Your task to perform on an android device: Clear the cart on ebay. Add "razer blackwidow" to the cart on ebay, then select checkout. Image 0: 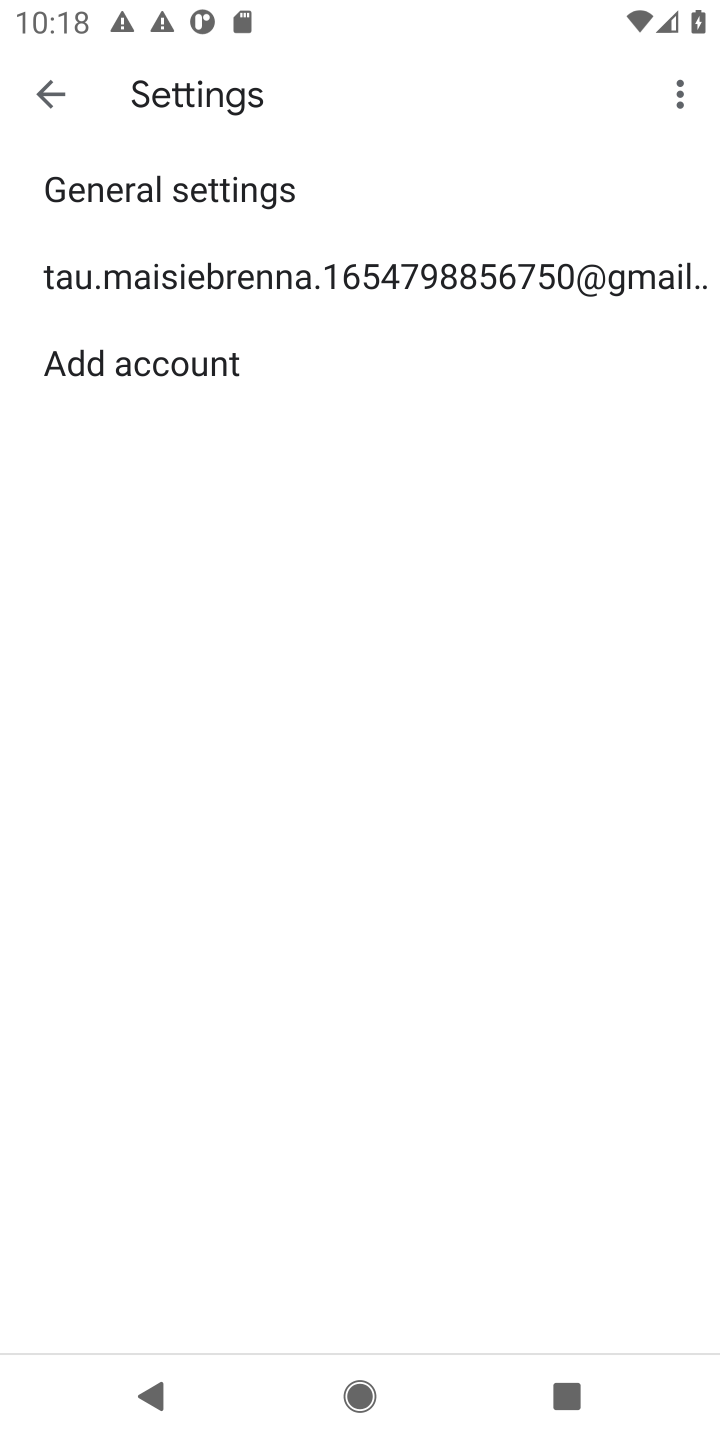
Step 0: press home button
Your task to perform on an android device: Clear the cart on ebay. Add "razer blackwidow" to the cart on ebay, then select checkout. Image 1: 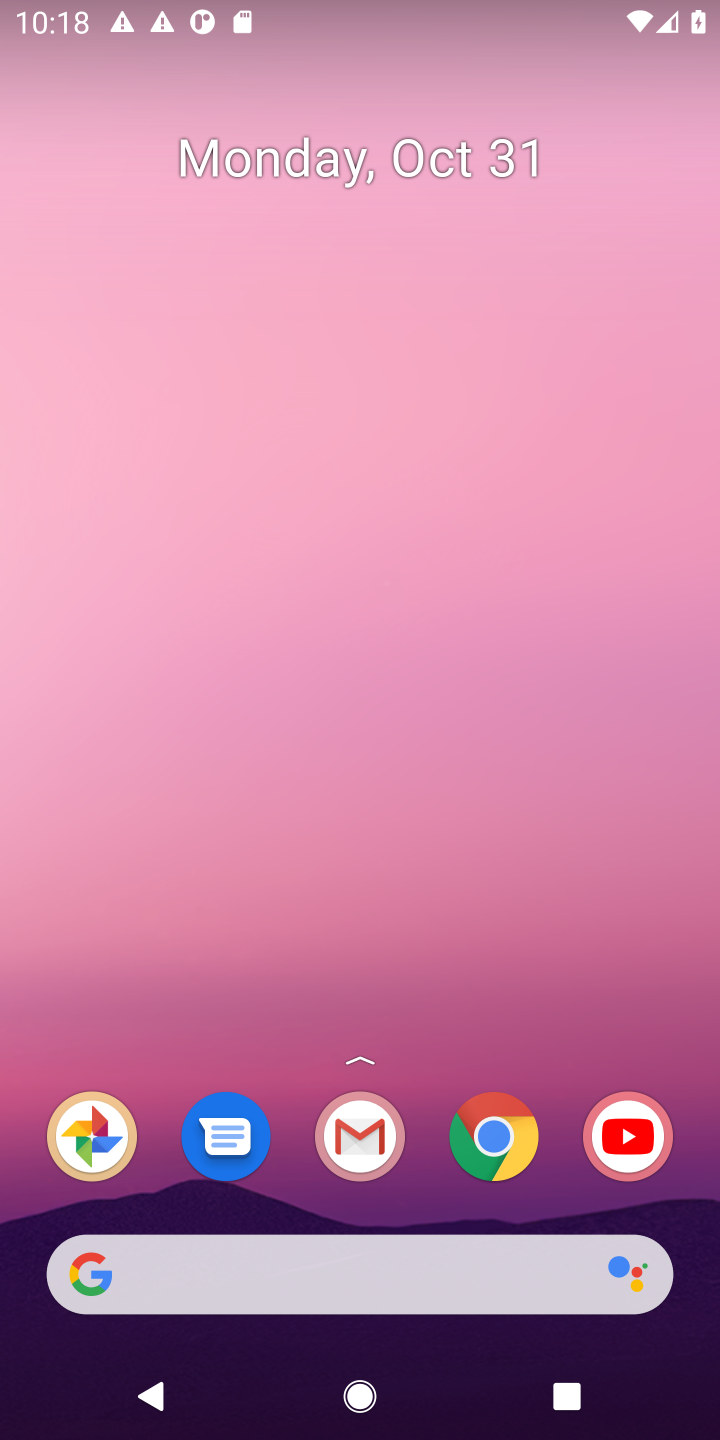
Step 1: click (122, 1251)
Your task to perform on an android device: Clear the cart on ebay. Add "razer blackwidow" to the cart on ebay, then select checkout. Image 2: 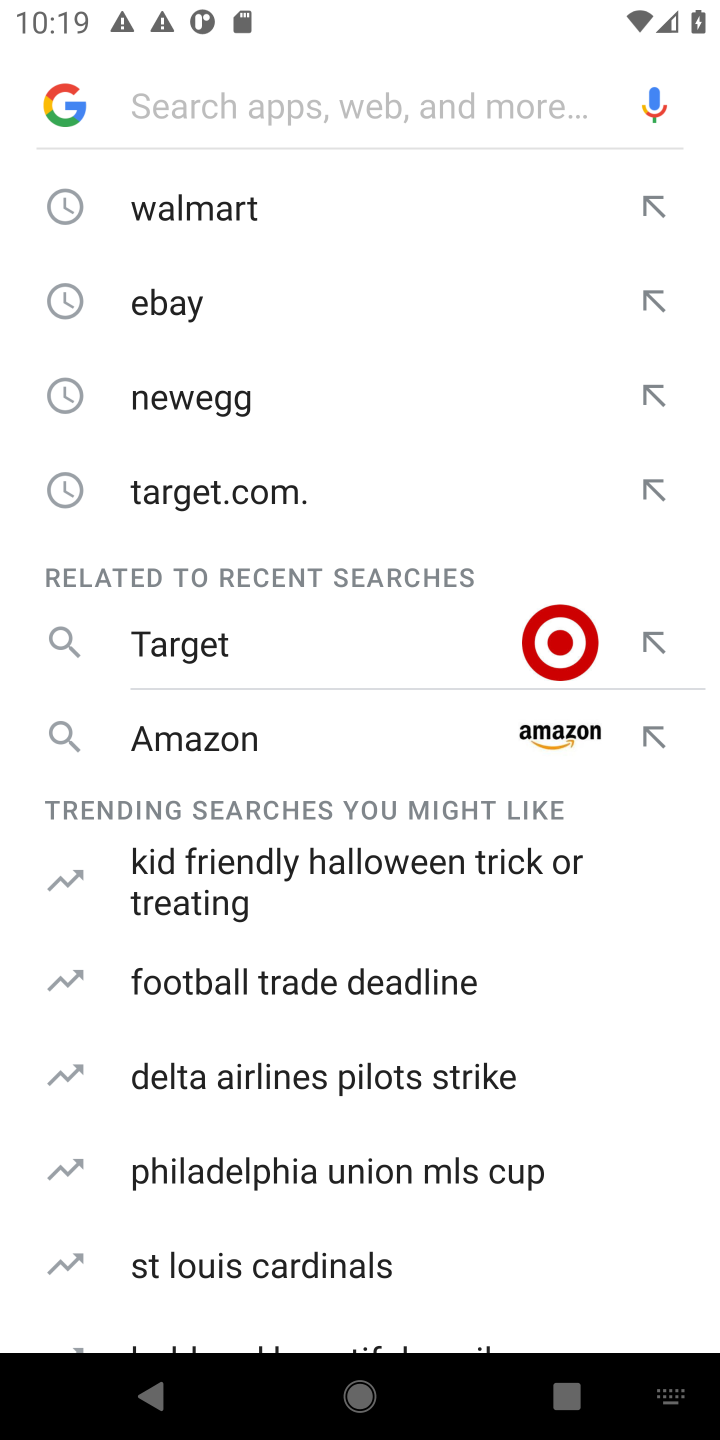
Step 2: type "ebay"
Your task to perform on an android device: Clear the cart on ebay. Add "razer blackwidow" to the cart on ebay, then select checkout. Image 3: 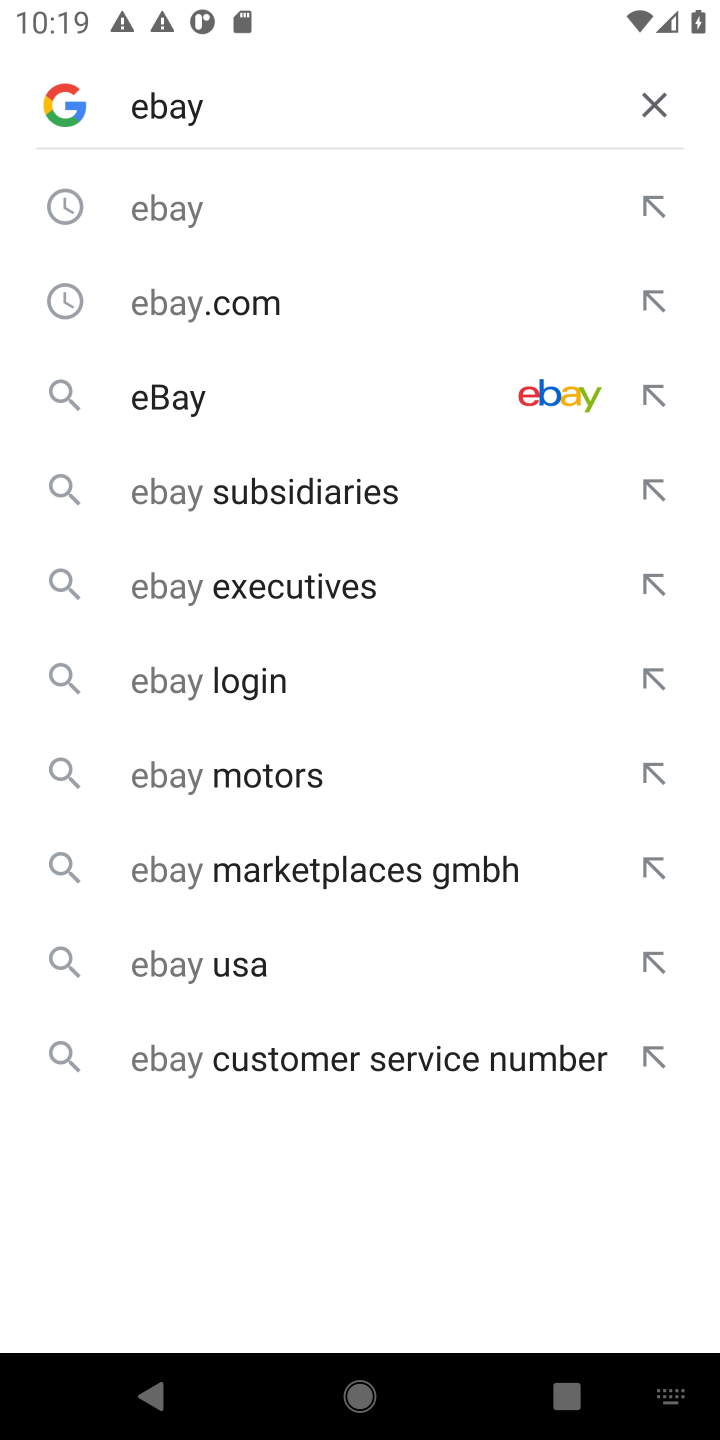
Step 3: press enter
Your task to perform on an android device: Clear the cart on ebay. Add "razer blackwidow" to the cart on ebay, then select checkout. Image 4: 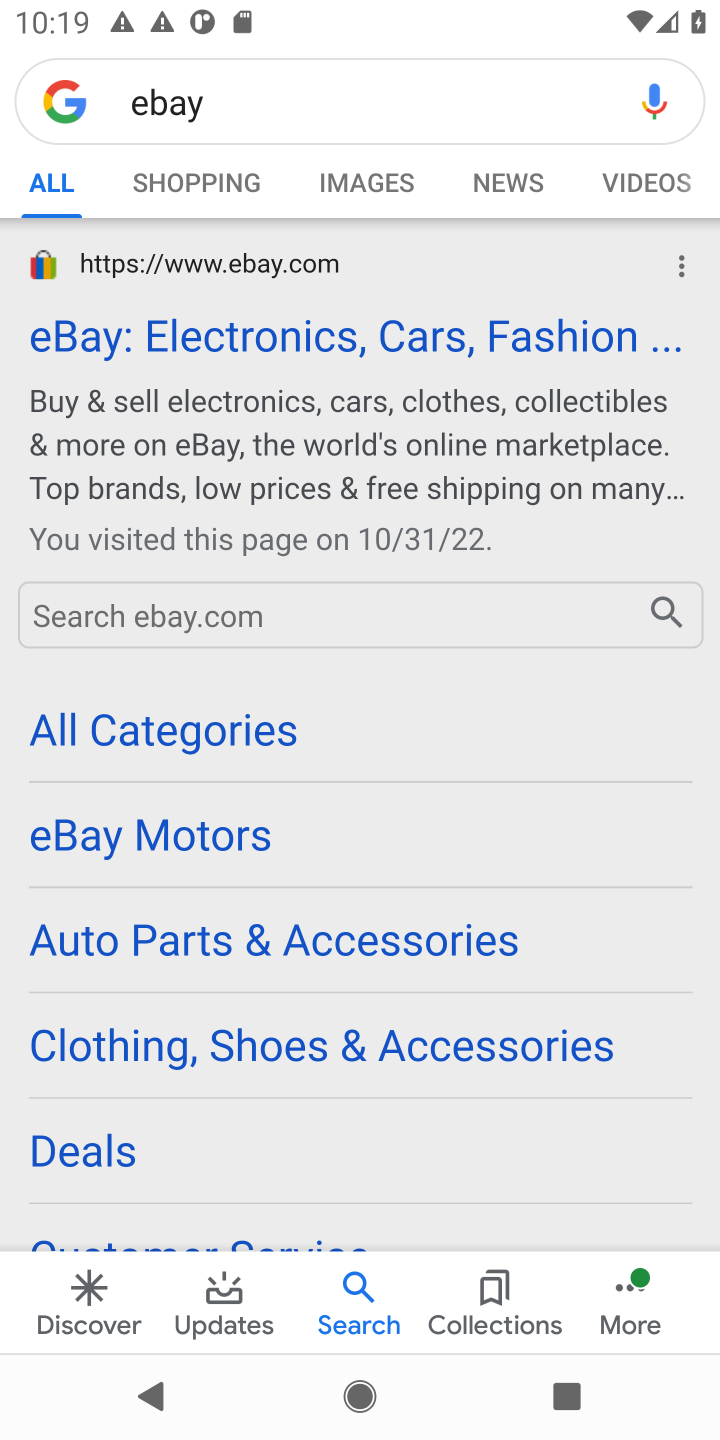
Step 4: click (177, 339)
Your task to perform on an android device: Clear the cart on ebay. Add "razer blackwidow" to the cart on ebay, then select checkout. Image 5: 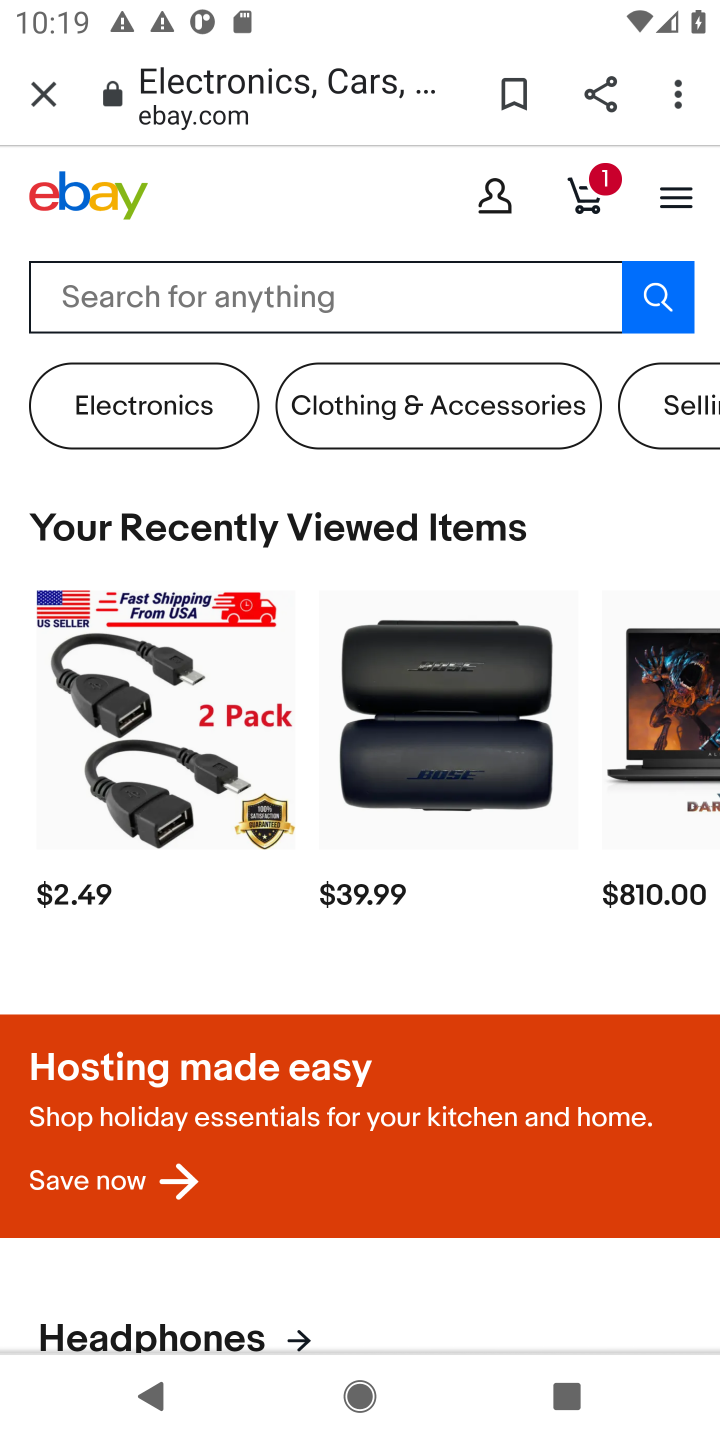
Step 5: click (590, 196)
Your task to perform on an android device: Clear the cart on ebay. Add "razer blackwidow" to the cart on ebay, then select checkout. Image 6: 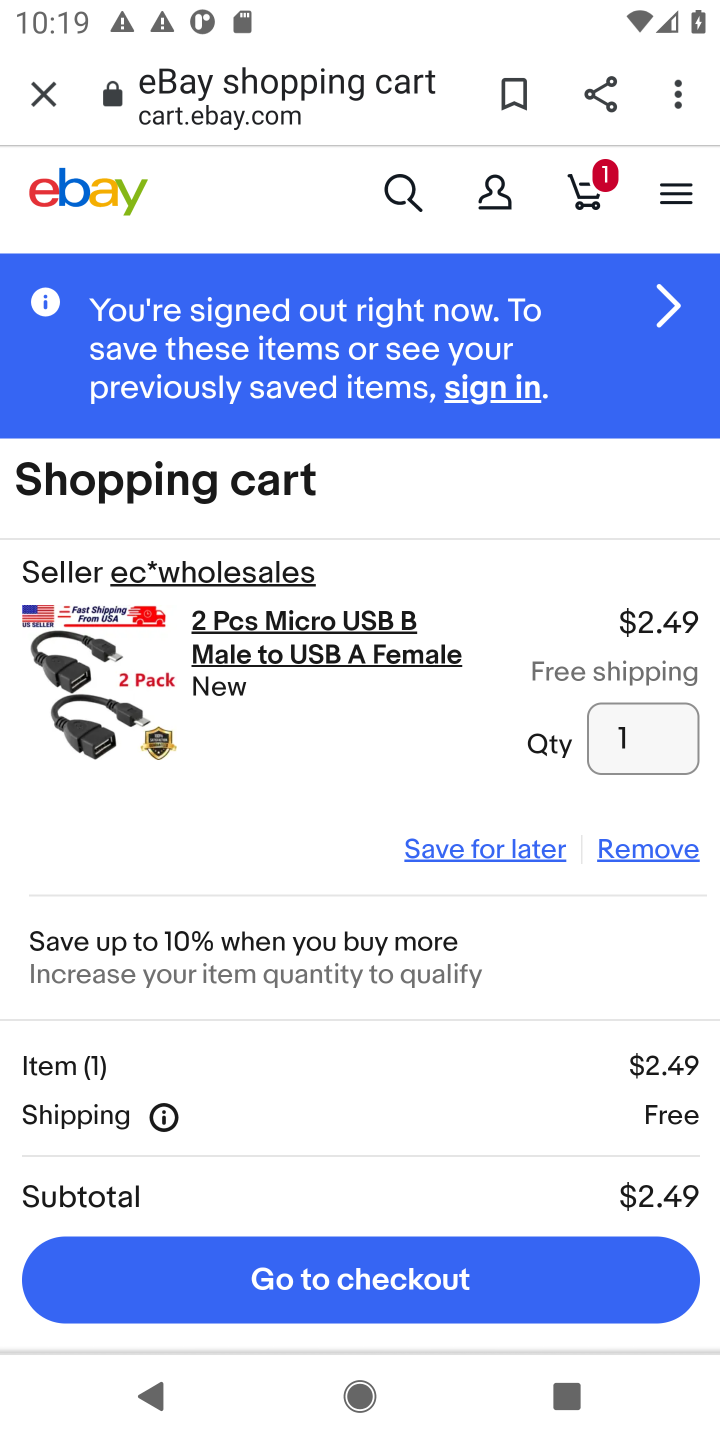
Step 6: click (640, 850)
Your task to perform on an android device: Clear the cart on ebay. Add "razer blackwidow" to the cart on ebay, then select checkout. Image 7: 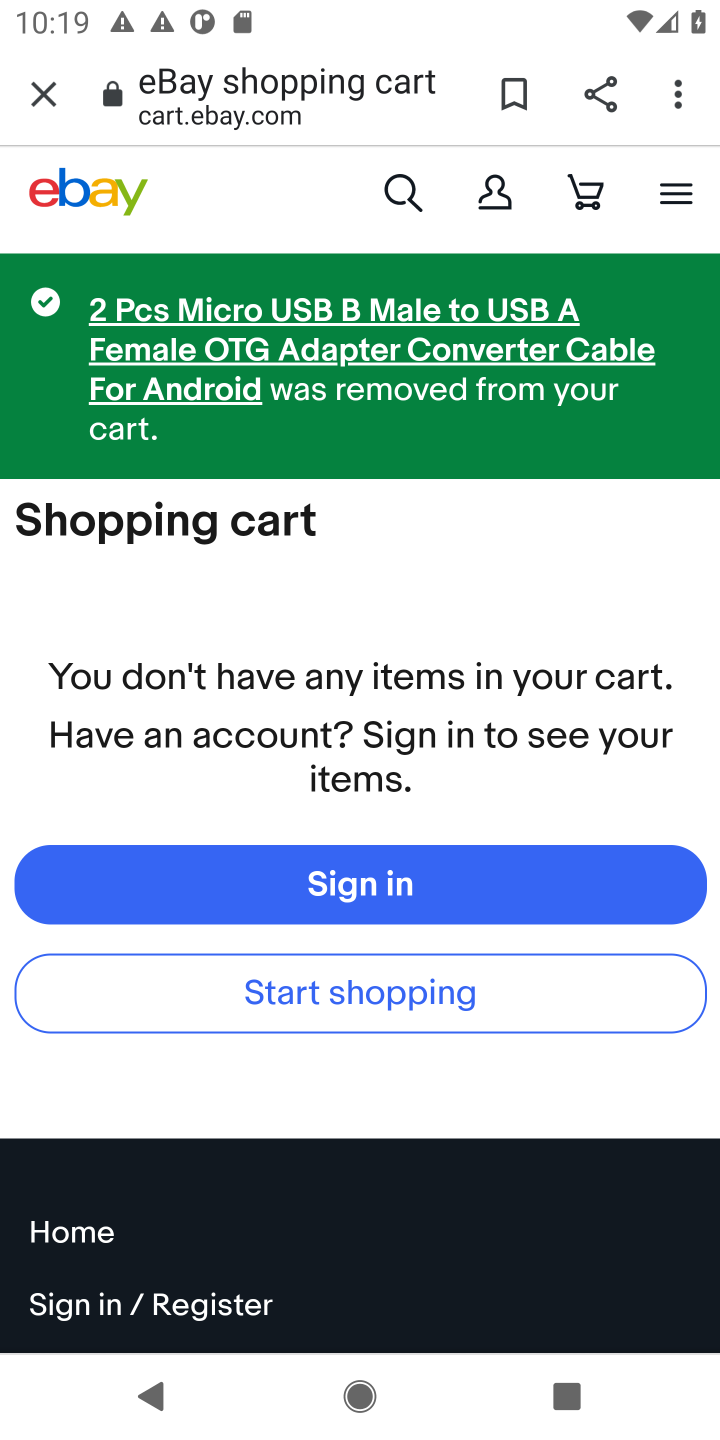
Step 7: click (396, 188)
Your task to perform on an android device: Clear the cart on ebay. Add "razer blackwidow" to the cart on ebay, then select checkout. Image 8: 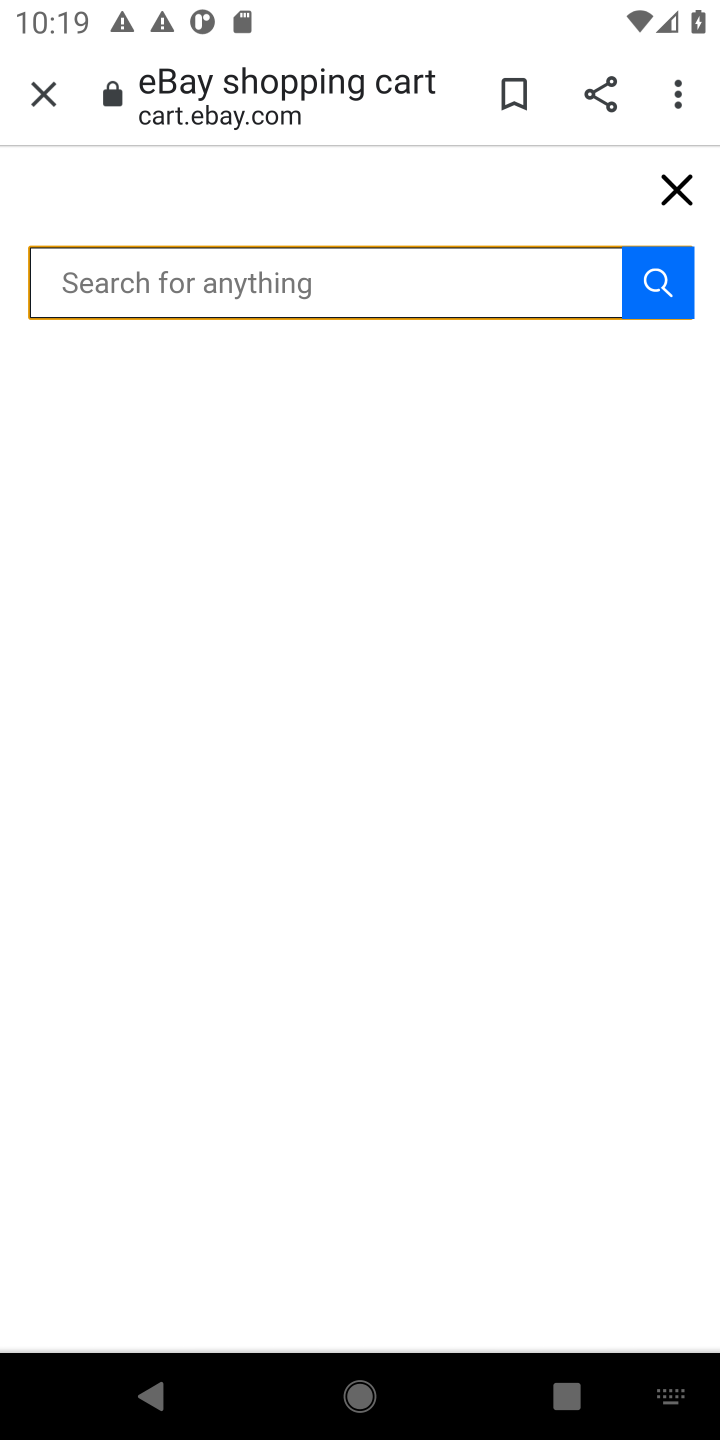
Step 8: type "razer blackwidow"
Your task to perform on an android device: Clear the cart on ebay. Add "razer blackwidow" to the cart on ebay, then select checkout. Image 9: 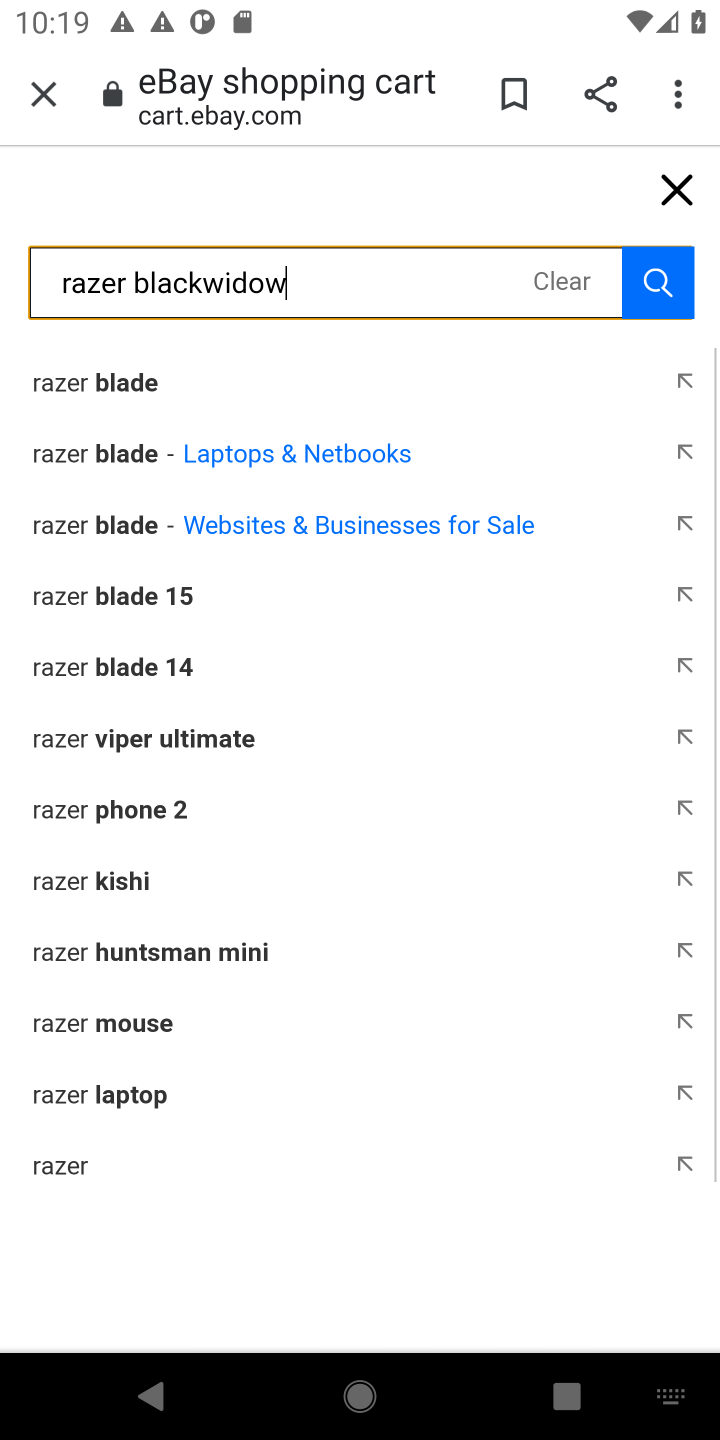
Step 9: press enter
Your task to perform on an android device: Clear the cart on ebay. Add "razer blackwidow" to the cart on ebay, then select checkout. Image 10: 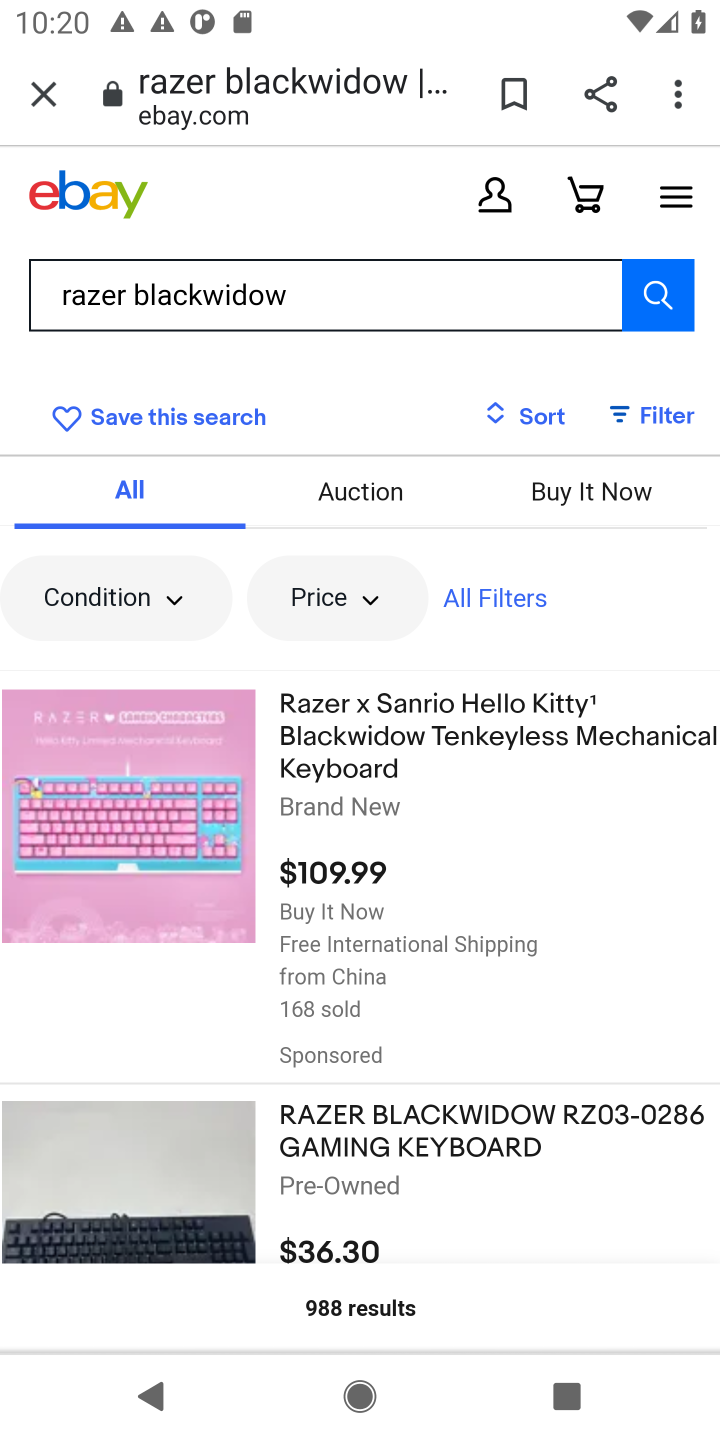
Step 10: click (354, 1113)
Your task to perform on an android device: Clear the cart on ebay. Add "razer blackwidow" to the cart on ebay, then select checkout. Image 11: 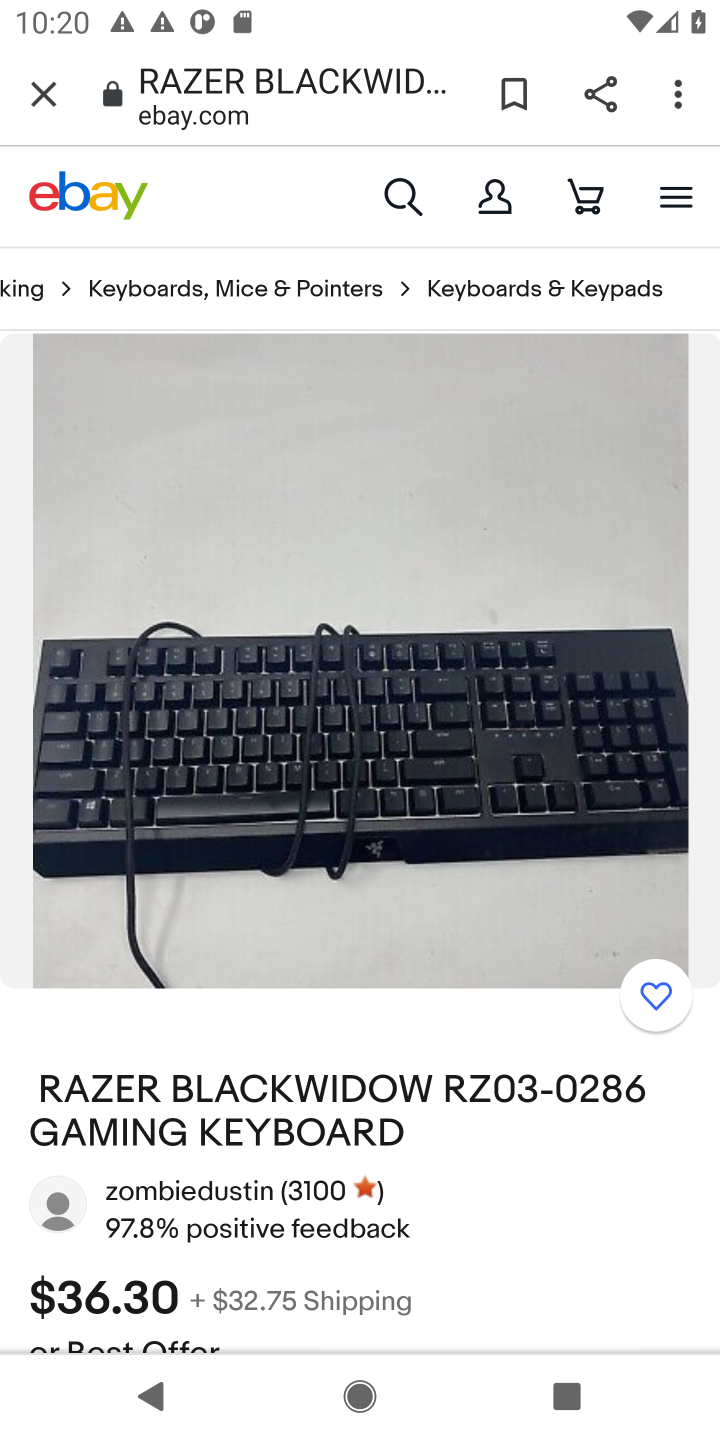
Step 11: drag from (419, 1212) to (474, 710)
Your task to perform on an android device: Clear the cart on ebay. Add "razer blackwidow" to the cart on ebay, then select checkout. Image 12: 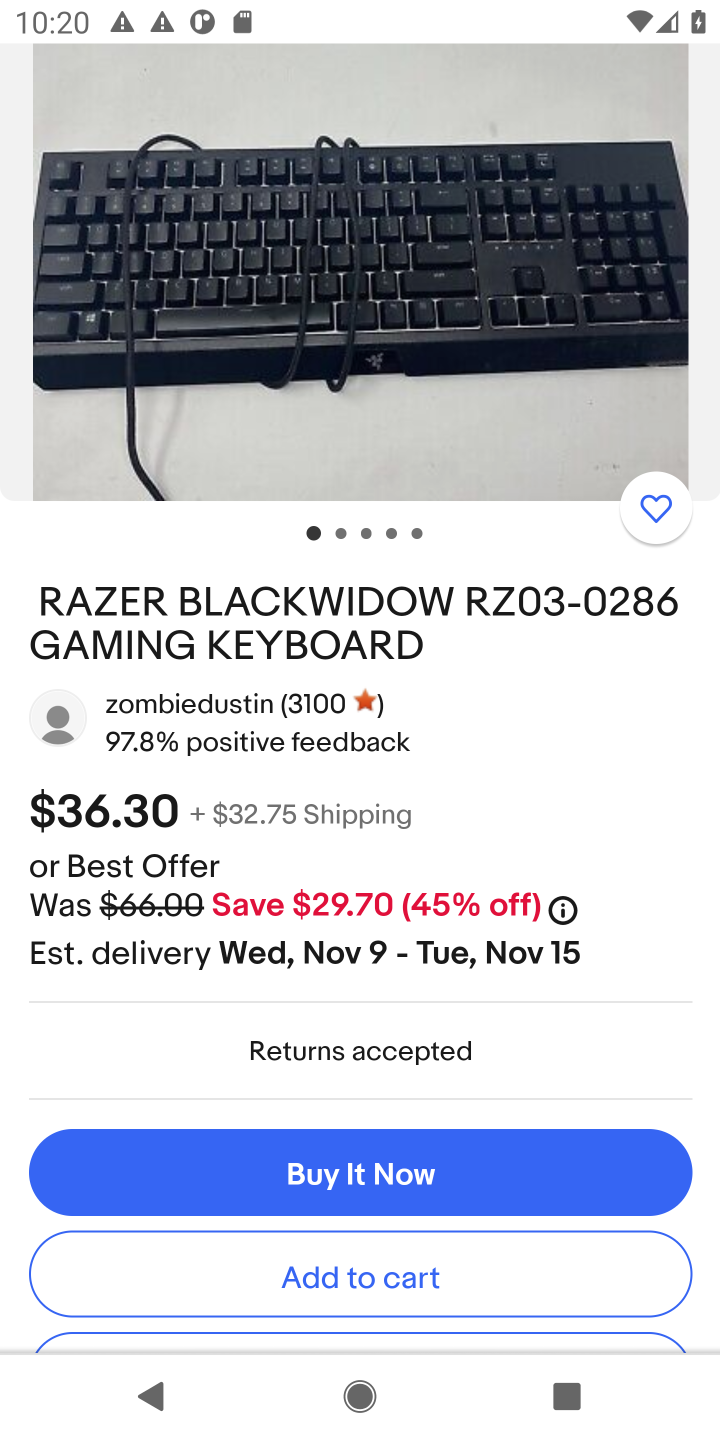
Step 12: drag from (394, 1140) to (459, 630)
Your task to perform on an android device: Clear the cart on ebay. Add "razer blackwidow" to the cart on ebay, then select checkout. Image 13: 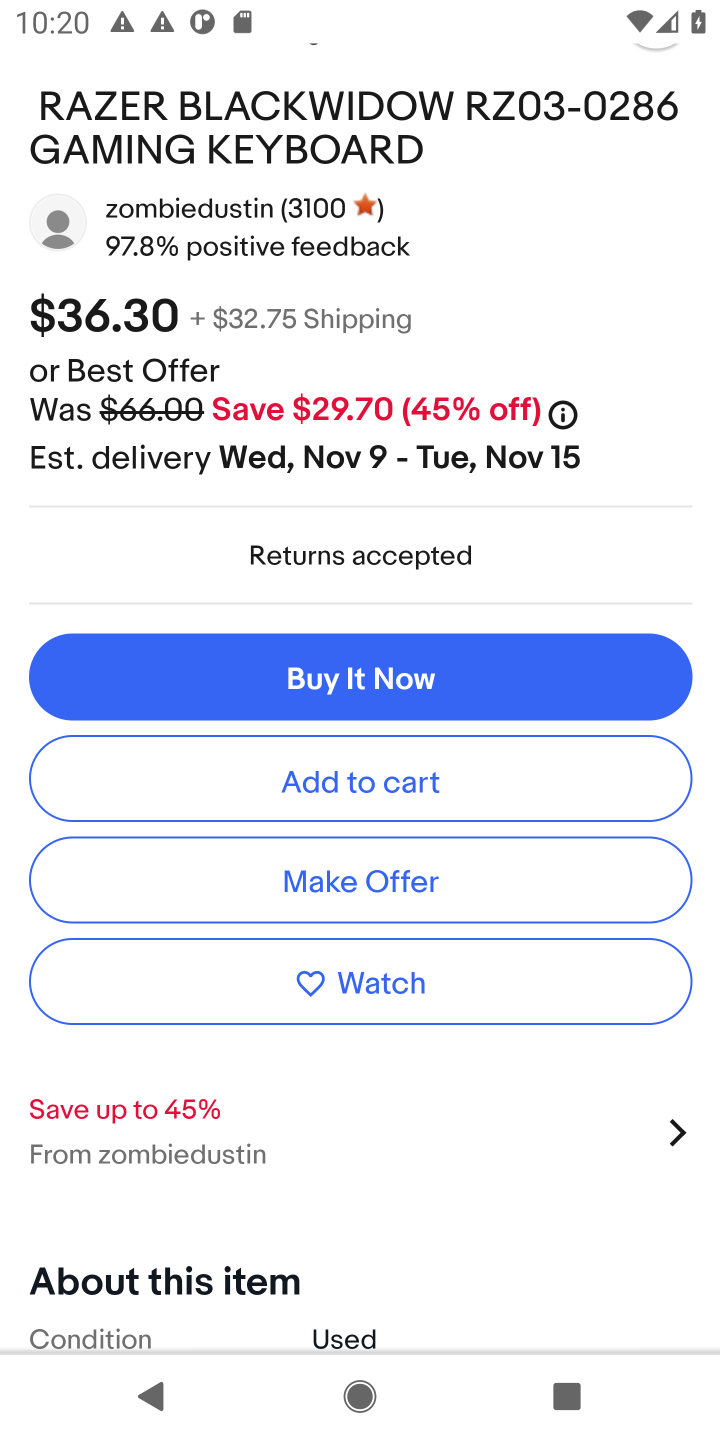
Step 13: click (368, 772)
Your task to perform on an android device: Clear the cart on ebay. Add "razer blackwidow" to the cart on ebay, then select checkout. Image 14: 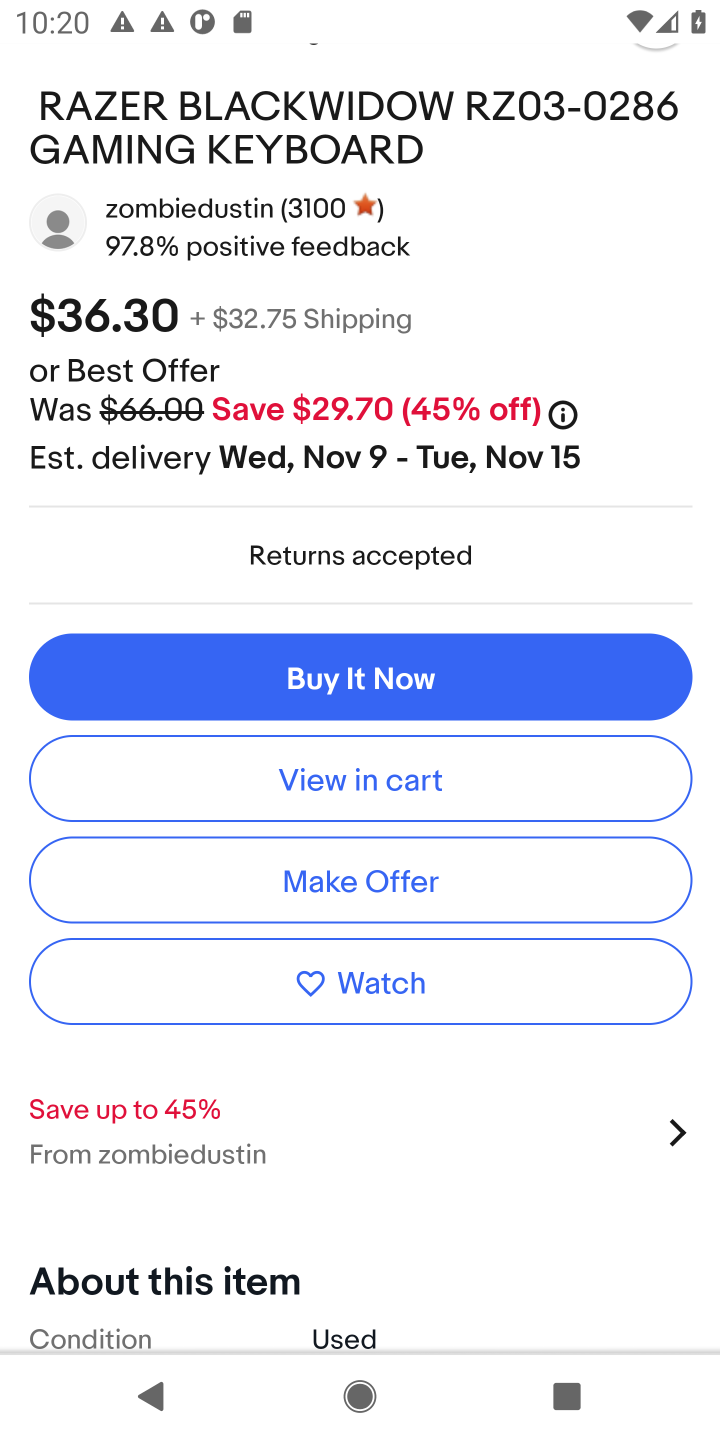
Step 14: click (337, 759)
Your task to perform on an android device: Clear the cart on ebay. Add "razer blackwidow" to the cart on ebay, then select checkout. Image 15: 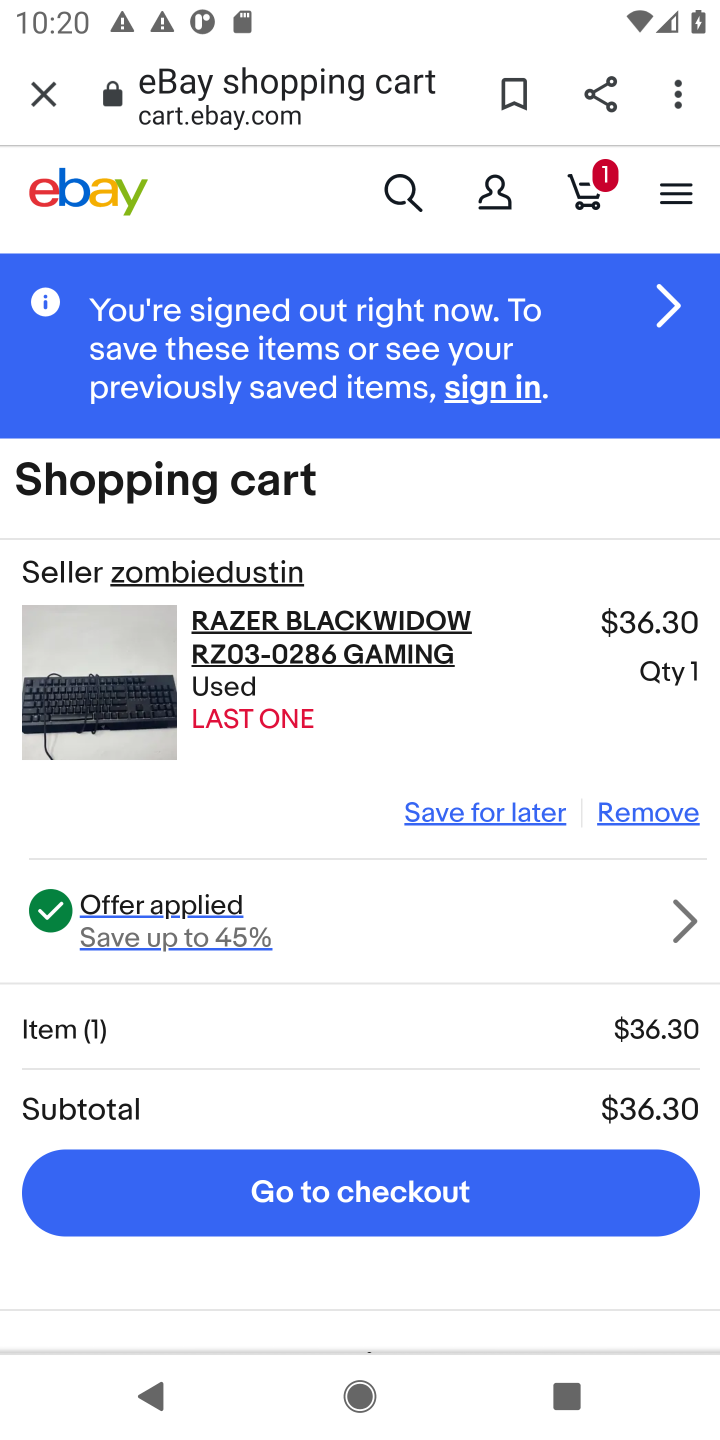
Step 15: click (339, 1191)
Your task to perform on an android device: Clear the cart on ebay. Add "razer blackwidow" to the cart on ebay, then select checkout. Image 16: 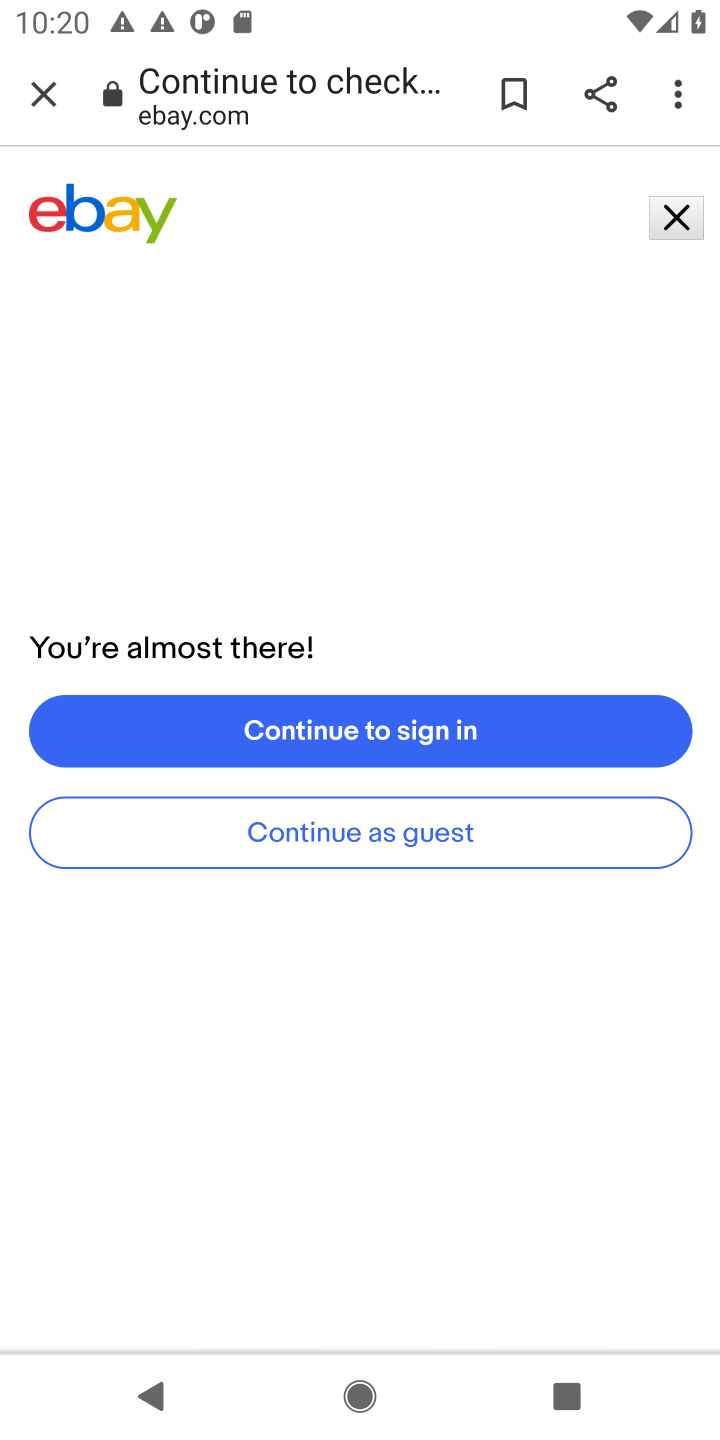
Step 16: task complete